Your task to perform on an android device: open app "LinkedIn" (install if not already installed) Image 0: 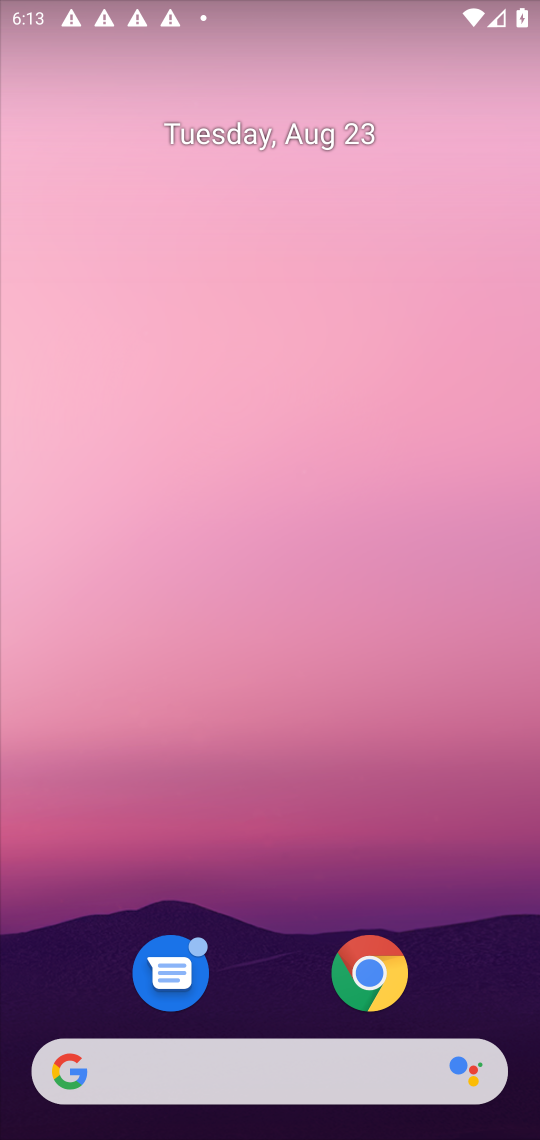
Step 0: drag from (244, 948) to (240, 97)
Your task to perform on an android device: open app "LinkedIn" (install if not already installed) Image 1: 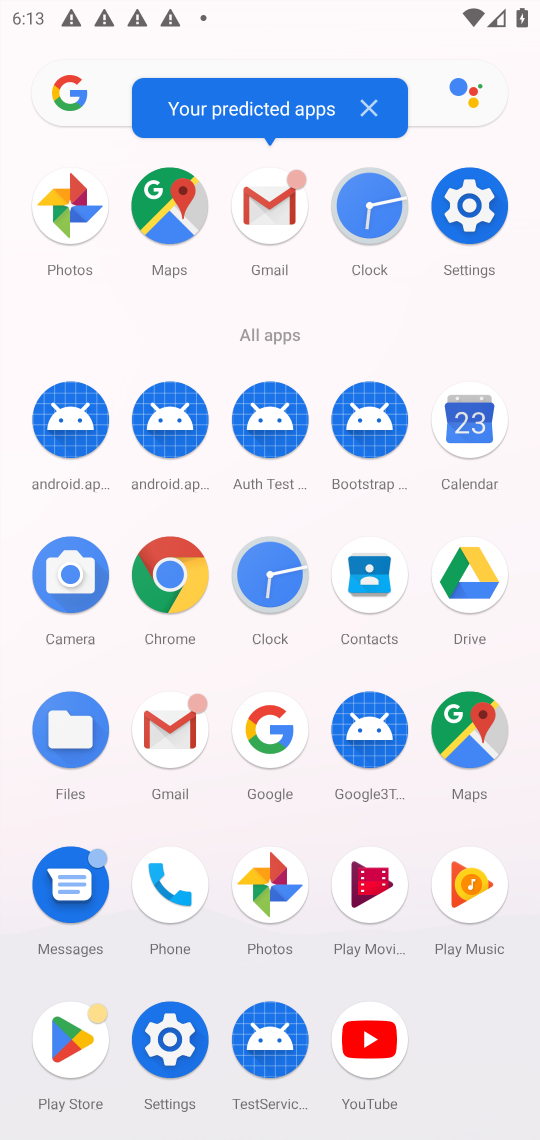
Step 1: click (80, 1032)
Your task to perform on an android device: open app "LinkedIn" (install if not already installed) Image 2: 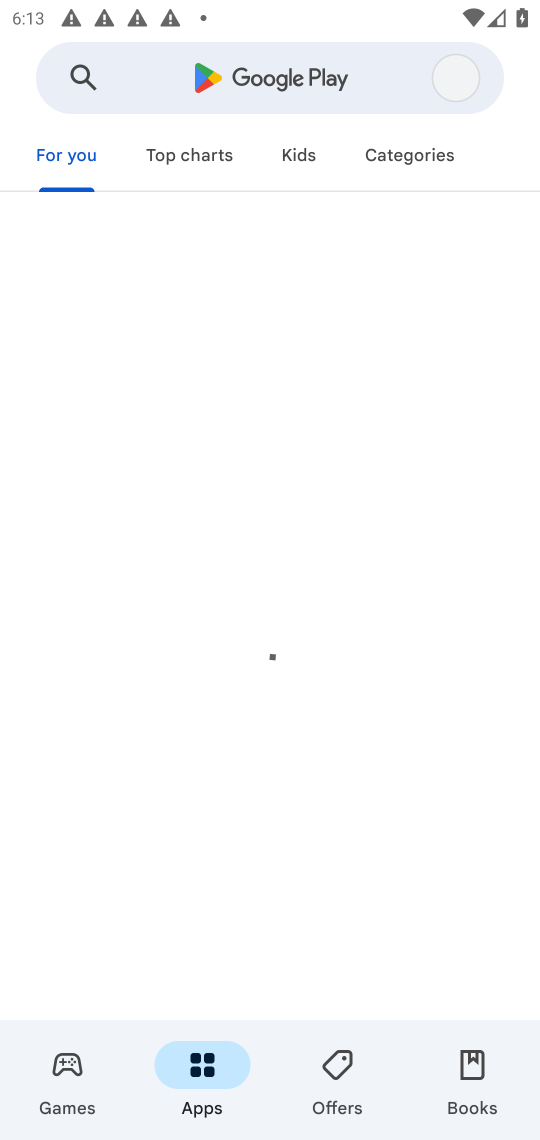
Step 2: click (263, 61)
Your task to perform on an android device: open app "LinkedIn" (install if not already installed) Image 3: 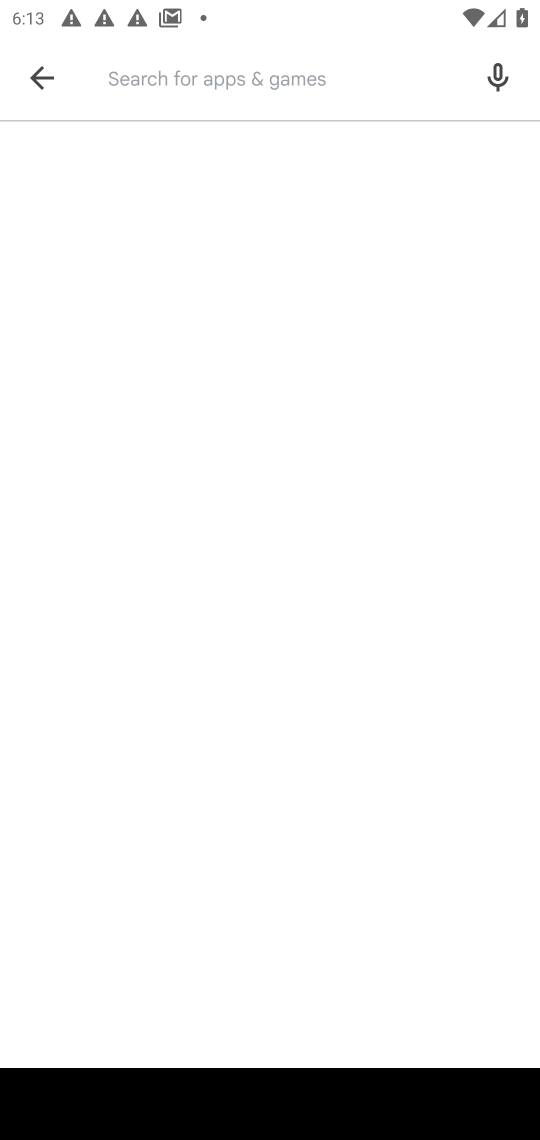
Step 3: click (126, 76)
Your task to perform on an android device: open app "LinkedIn" (install if not already installed) Image 4: 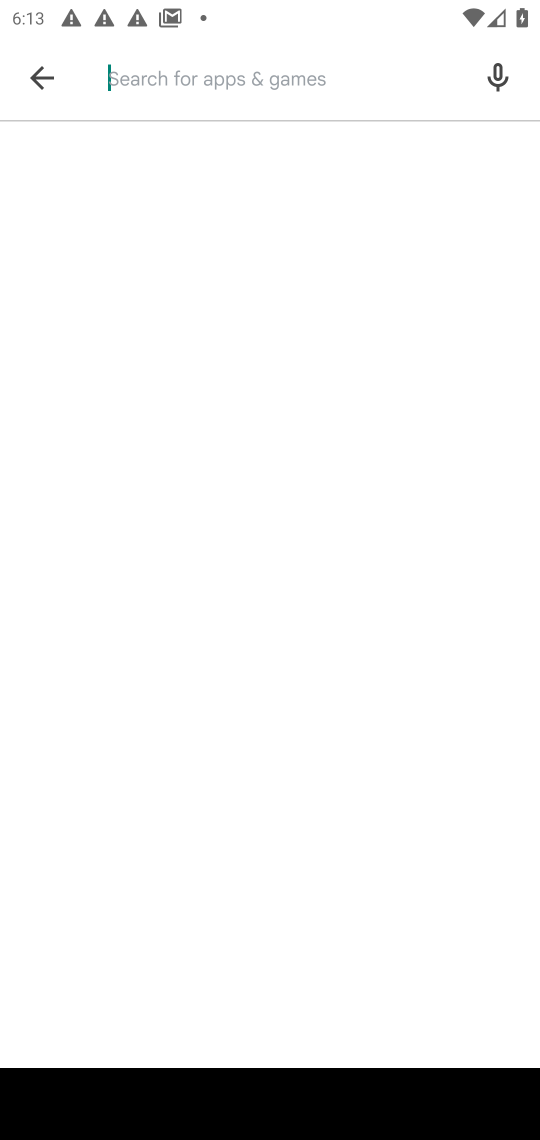
Step 4: type "LinkedIn"
Your task to perform on an android device: open app "LinkedIn" (install if not already installed) Image 5: 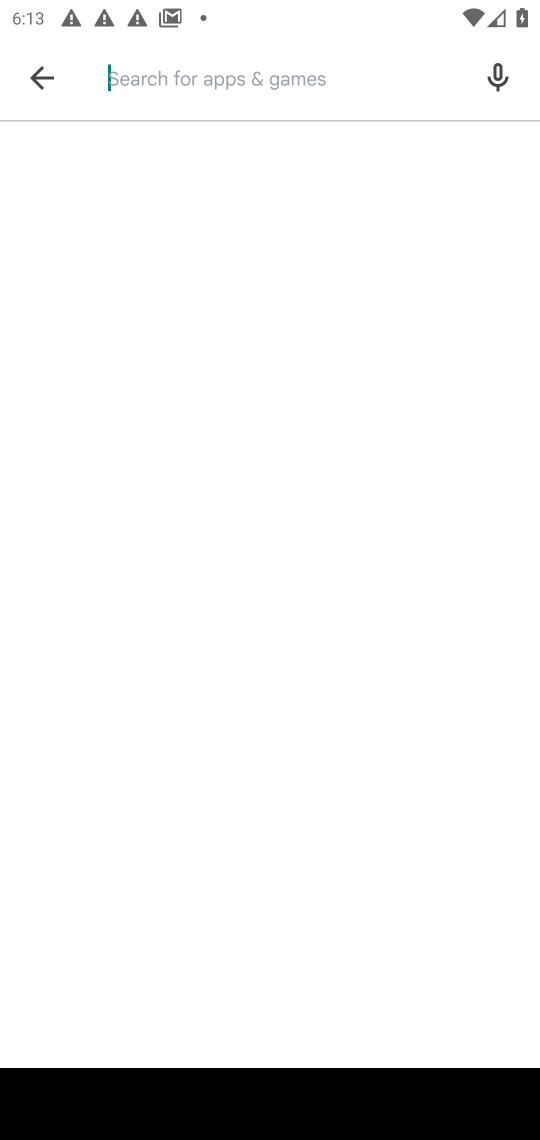
Step 5: click (256, 715)
Your task to perform on an android device: open app "LinkedIn" (install if not already installed) Image 6: 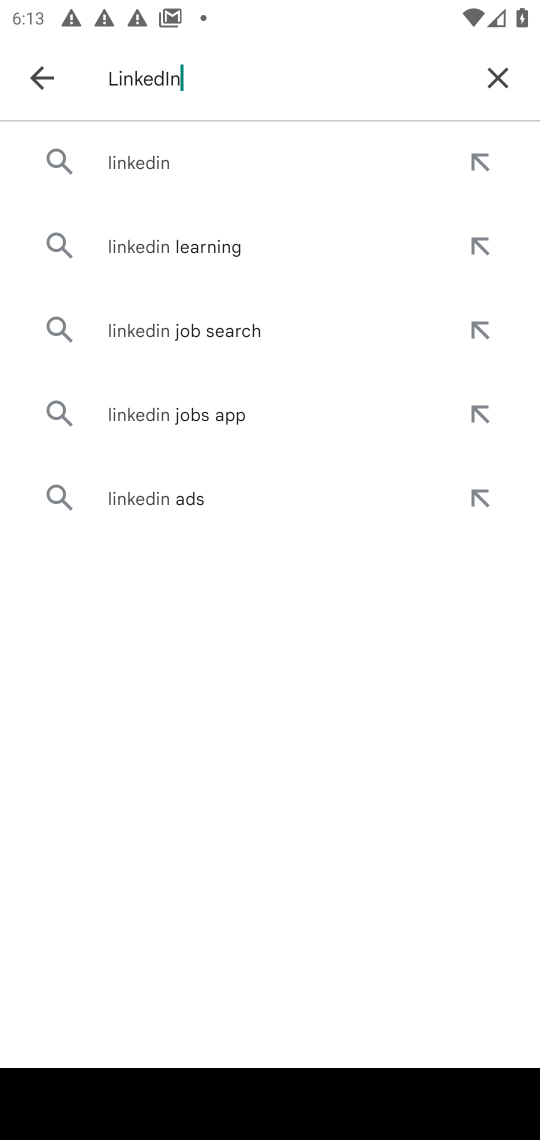
Step 6: click (139, 169)
Your task to perform on an android device: open app "LinkedIn" (install if not already installed) Image 7: 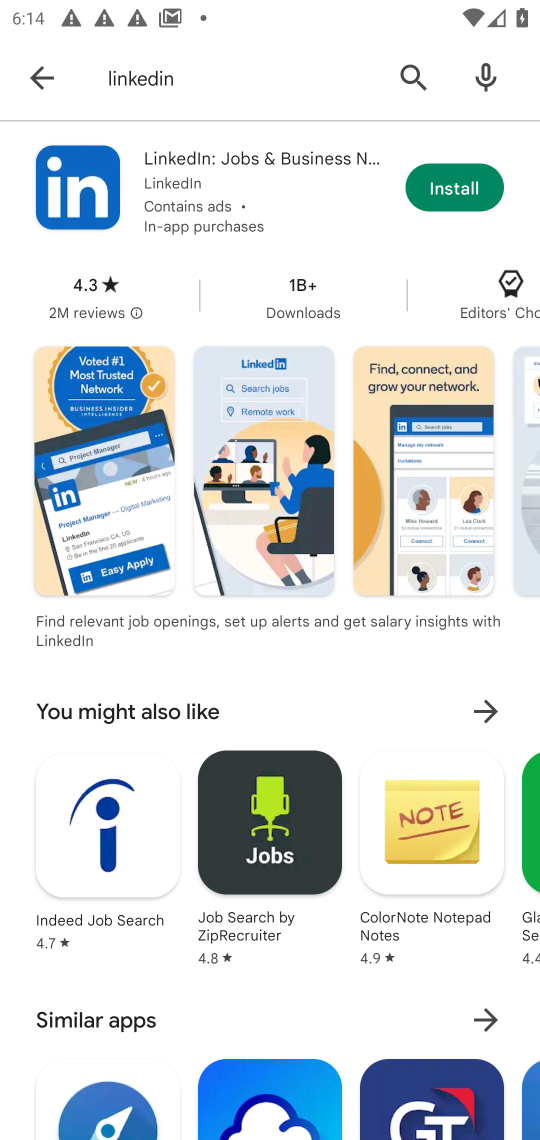
Step 7: click (443, 189)
Your task to perform on an android device: open app "LinkedIn" (install if not already installed) Image 8: 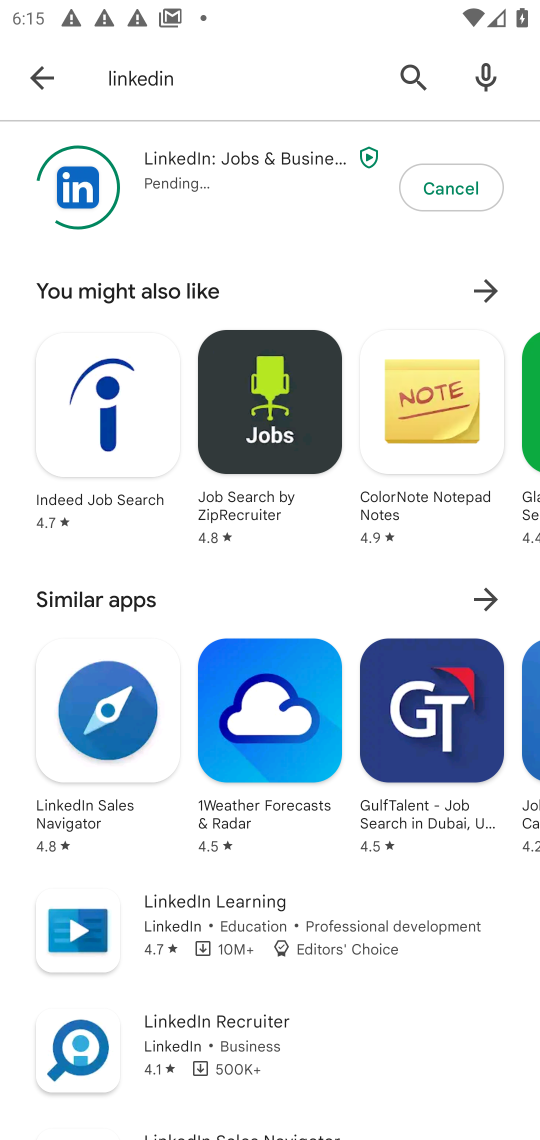
Step 8: press back button
Your task to perform on an android device: open app "LinkedIn" (install if not already installed) Image 9: 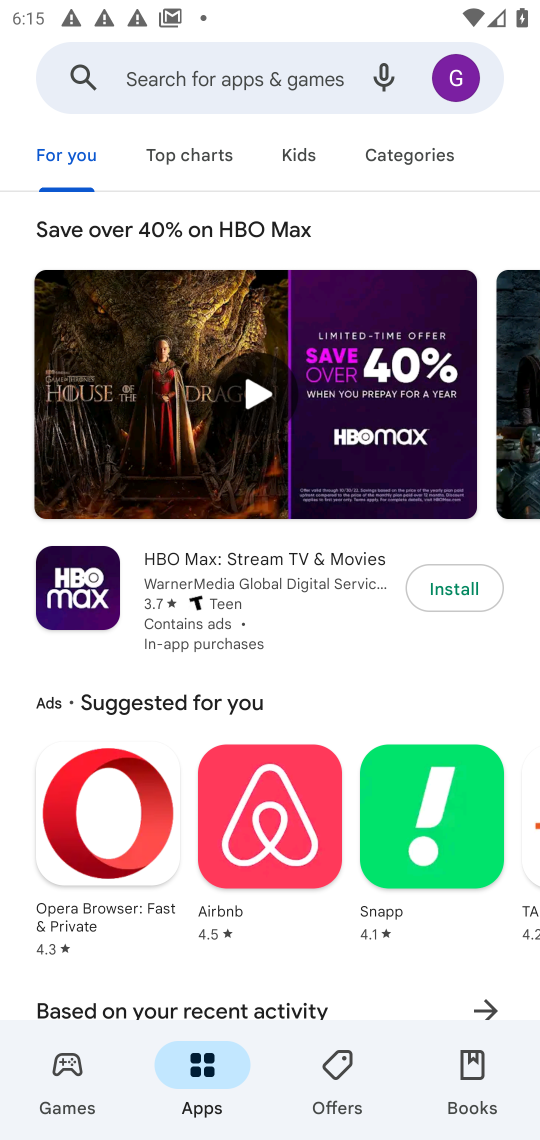
Step 9: click (227, 83)
Your task to perform on an android device: open app "LinkedIn" (install if not already installed) Image 10: 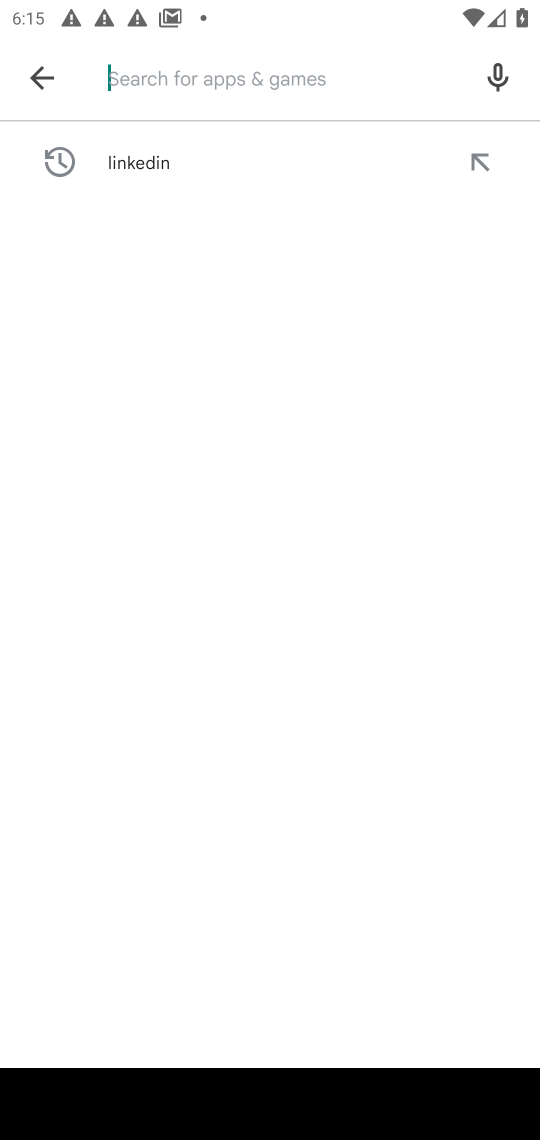
Step 10: click (128, 161)
Your task to perform on an android device: open app "LinkedIn" (install if not already installed) Image 11: 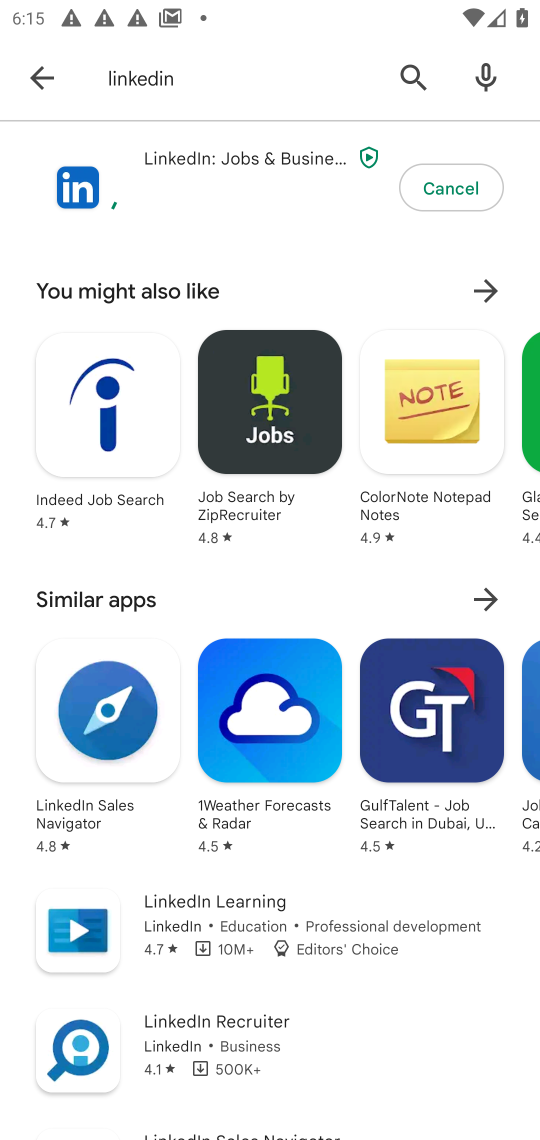
Step 11: click (196, 154)
Your task to perform on an android device: open app "LinkedIn" (install if not already installed) Image 12: 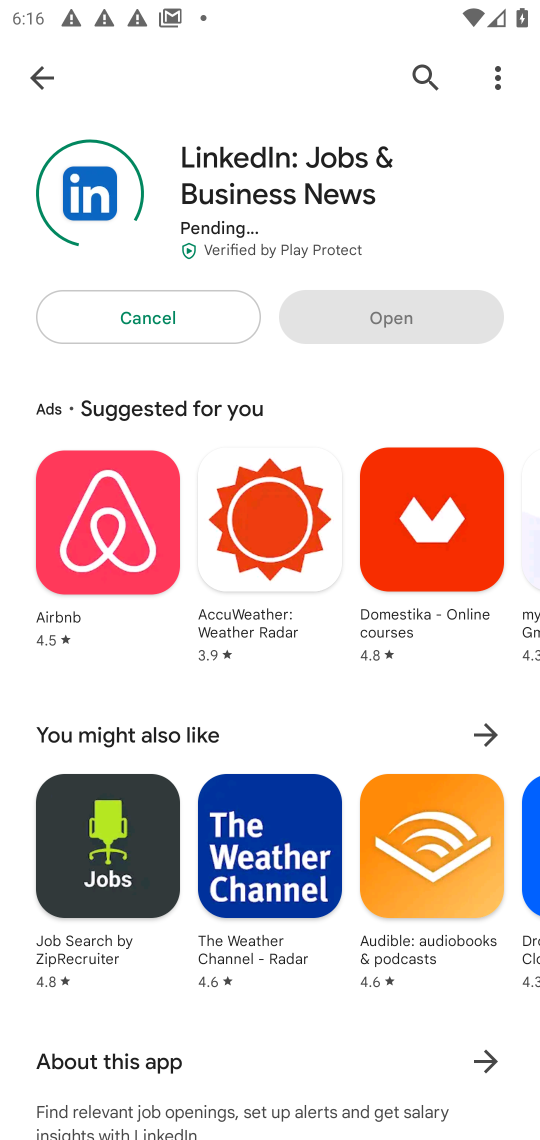
Step 12: task complete